Your task to perform on an android device: turn notification dots off Image 0: 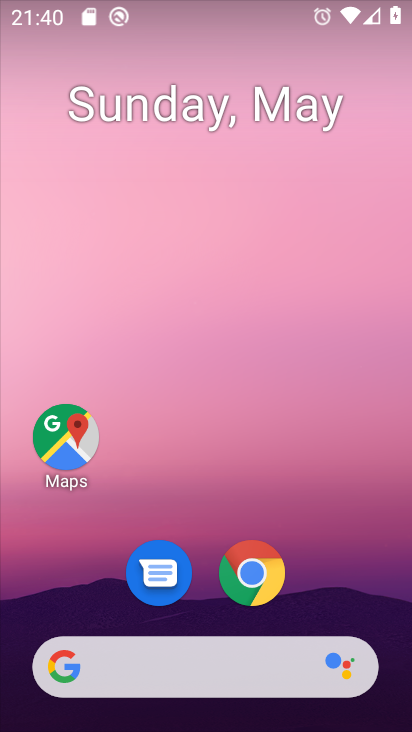
Step 0: drag from (241, 481) to (268, 0)
Your task to perform on an android device: turn notification dots off Image 1: 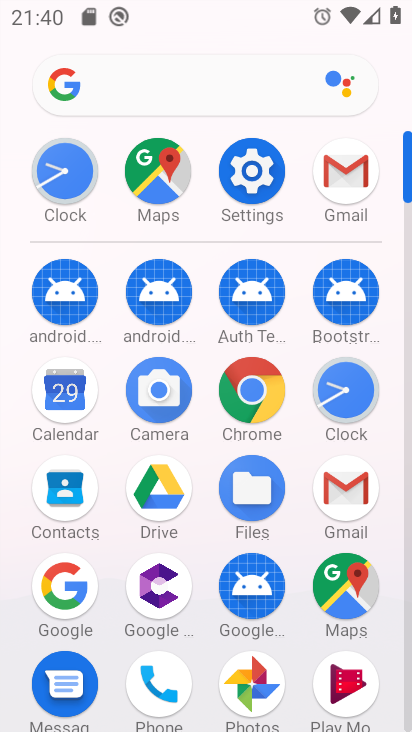
Step 1: click (253, 175)
Your task to perform on an android device: turn notification dots off Image 2: 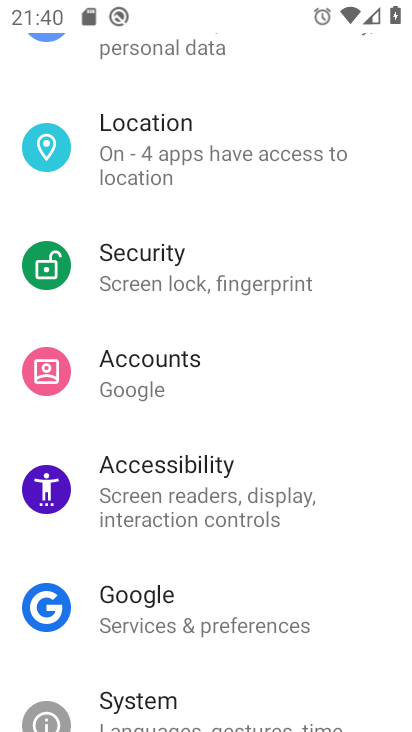
Step 2: drag from (233, 585) to (256, 418)
Your task to perform on an android device: turn notification dots off Image 3: 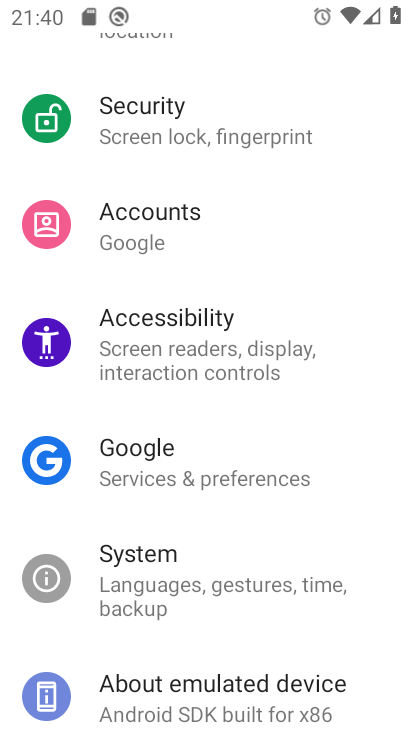
Step 3: drag from (275, 119) to (231, 624)
Your task to perform on an android device: turn notification dots off Image 4: 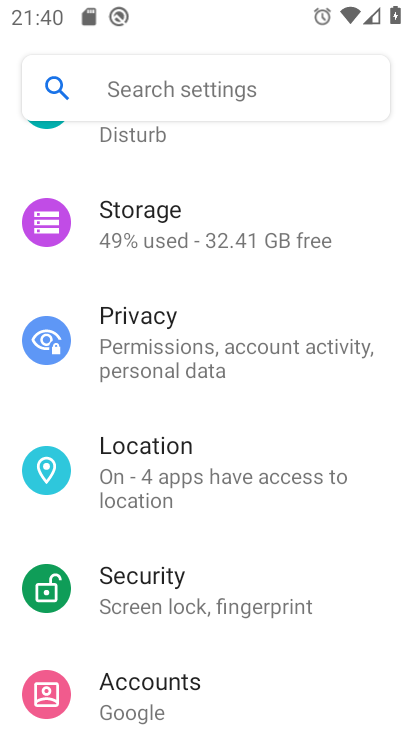
Step 4: drag from (233, 191) to (224, 638)
Your task to perform on an android device: turn notification dots off Image 5: 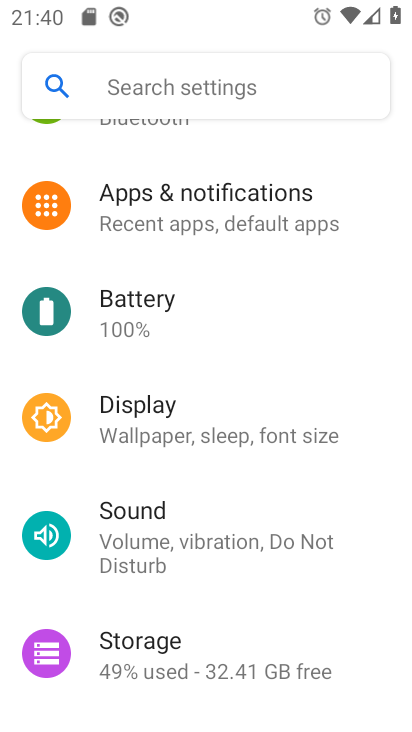
Step 5: click (232, 195)
Your task to perform on an android device: turn notification dots off Image 6: 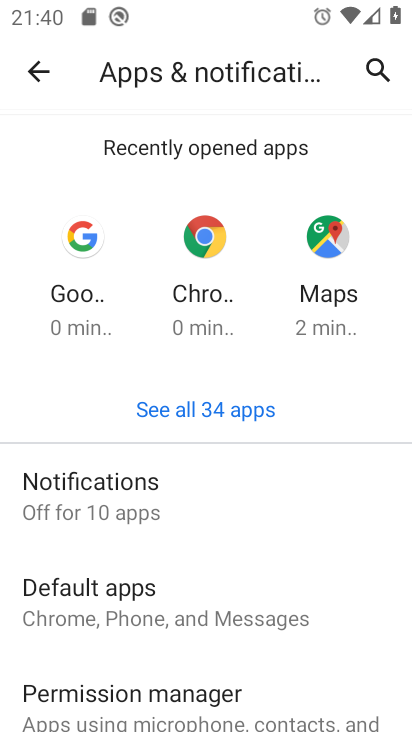
Step 6: click (186, 502)
Your task to perform on an android device: turn notification dots off Image 7: 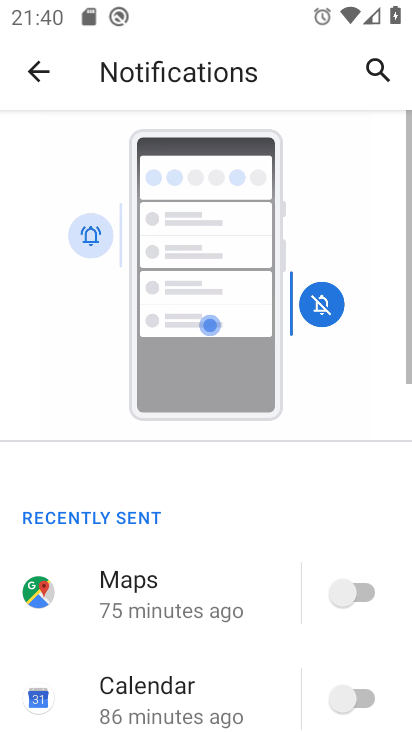
Step 7: drag from (240, 574) to (319, 28)
Your task to perform on an android device: turn notification dots off Image 8: 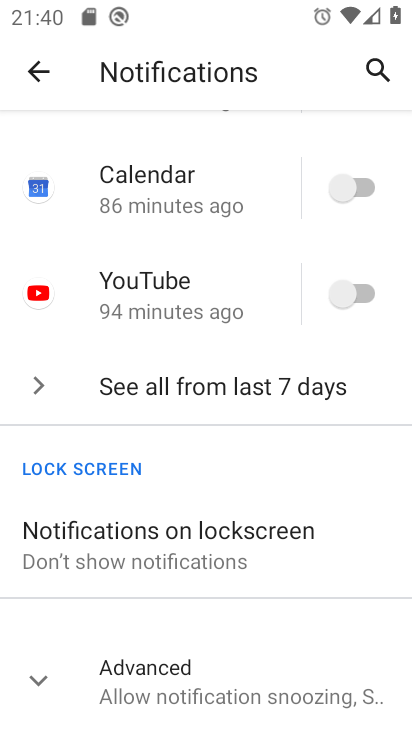
Step 8: drag from (235, 495) to (251, 192)
Your task to perform on an android device: turn notification dots off Image 9: 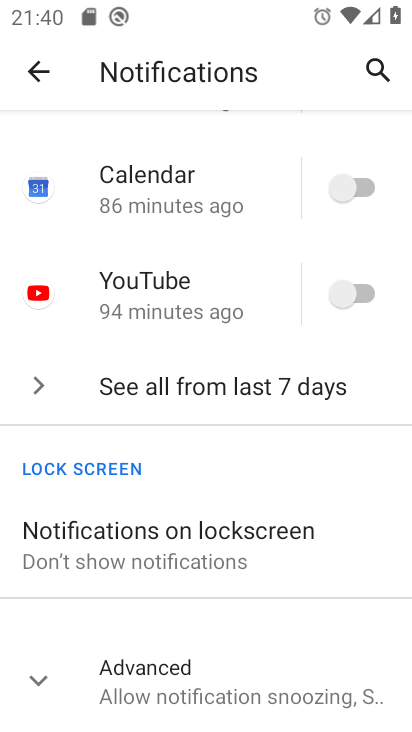
Step 9: click (35, 675)
Your task to perform on an android device: turn notification dots off Image 10: 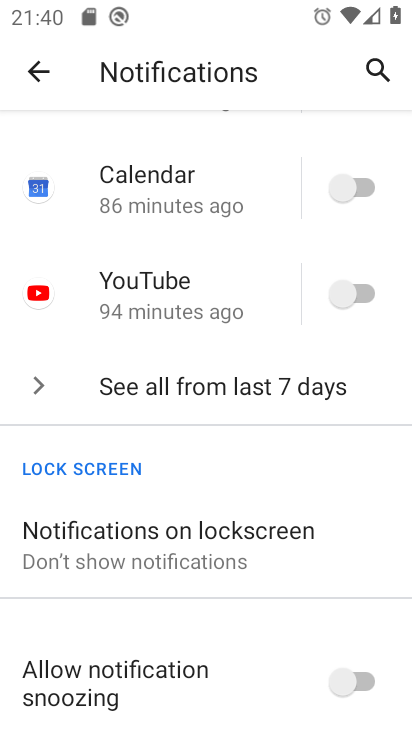
Step 10: drag from (197, 607) to (283, 36)
Your task to perform on an android device: turn notification dots off Image 11: 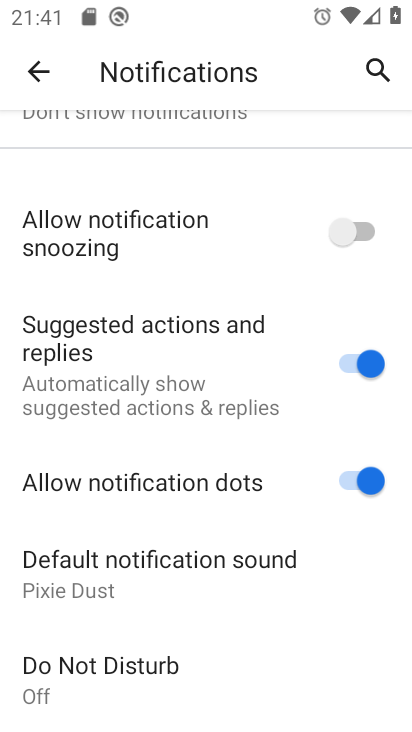
Step 11: click (364, 481)
Your task to perform on an android device: turn notification dots off Image 12: 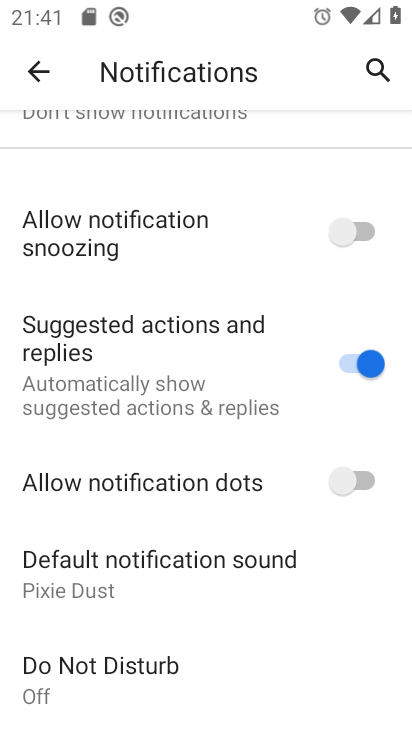
Step 12: task complete